Your task to perform on an android device: set the stopwatch Image 0: 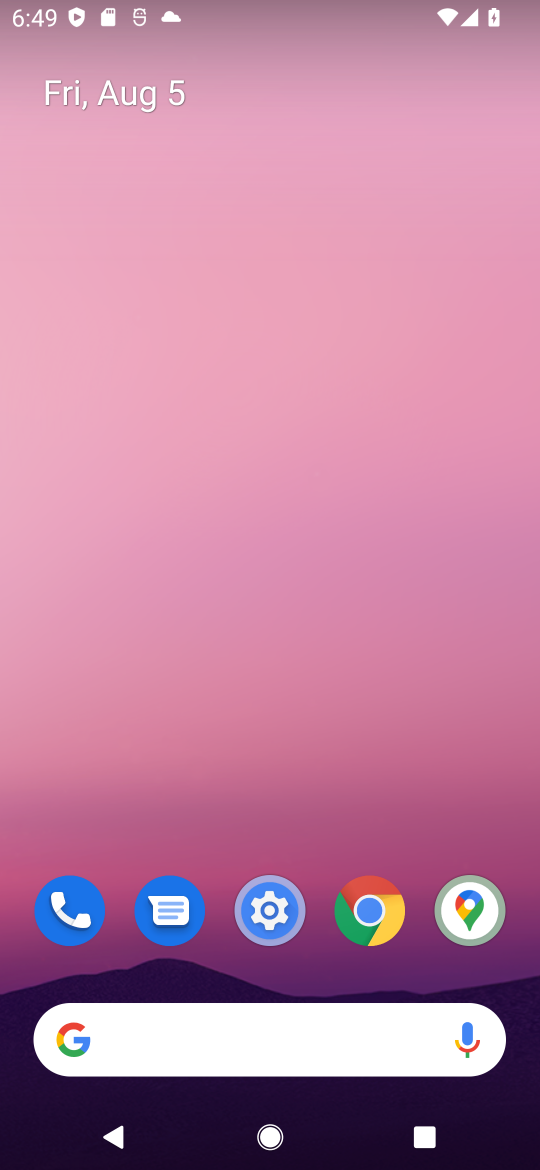
Step 0: drag from (339, 1070) to (234, 59)
Your task to perform on an android device: set the stopwatch Image 1: 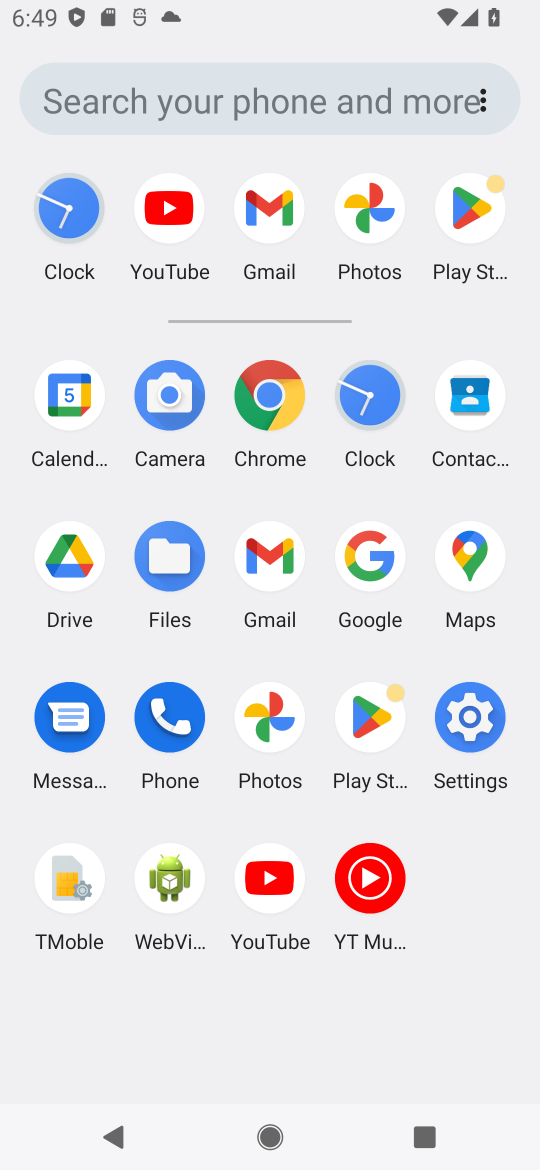
Step 1: click (383, 388)
Your task to perform on an android device: set the stopwatch Image 2: 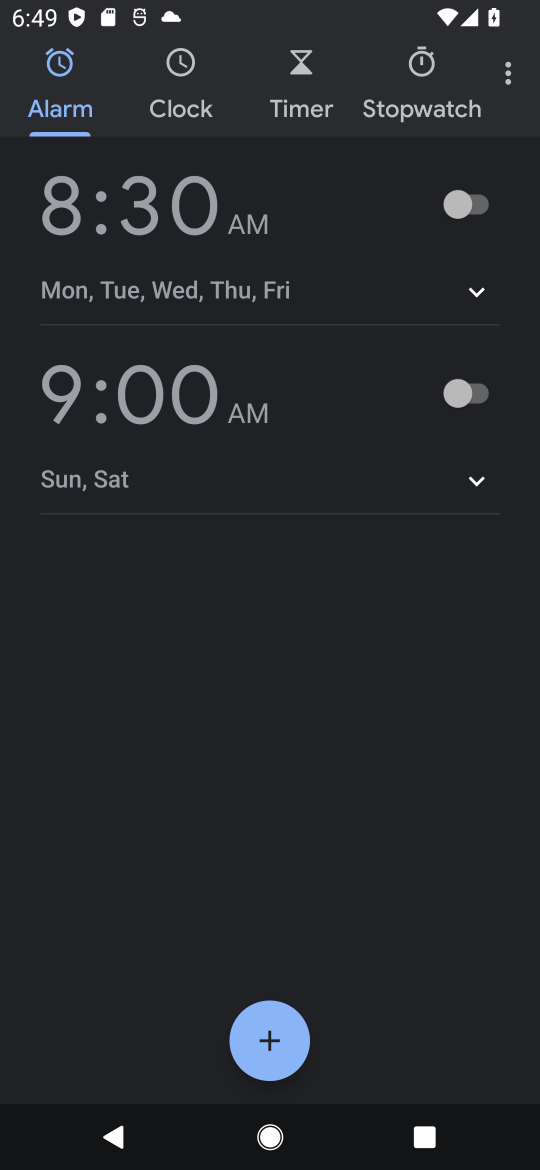
Step 2: click (446, 77)
Your task to perform on an android device: set the stopwatch Image 3: 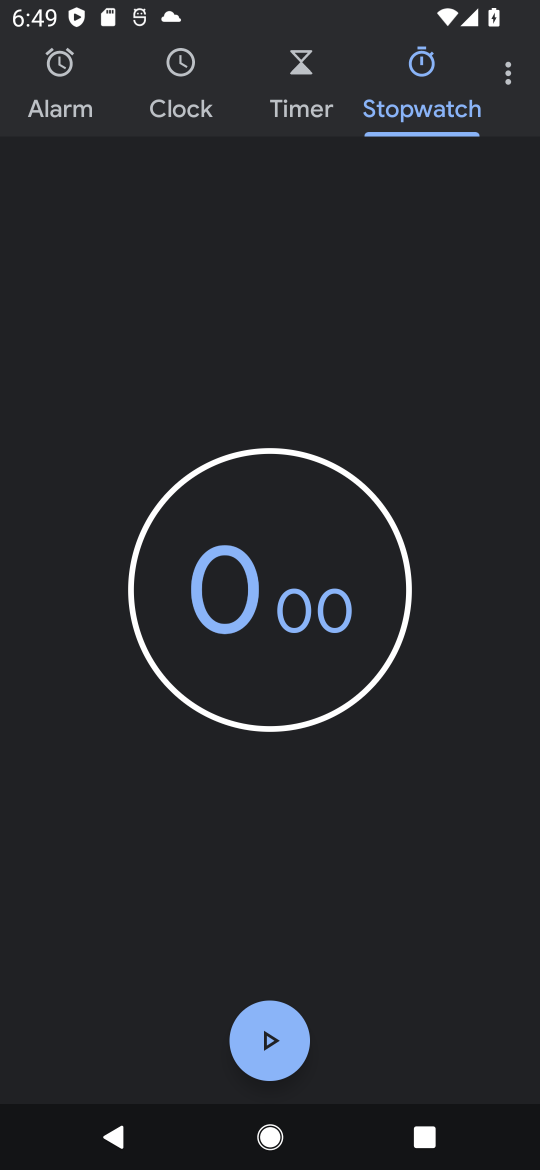
Step 3: click (268, 1035)
Your task to perform on an android device: set the stopwatch Image 4: 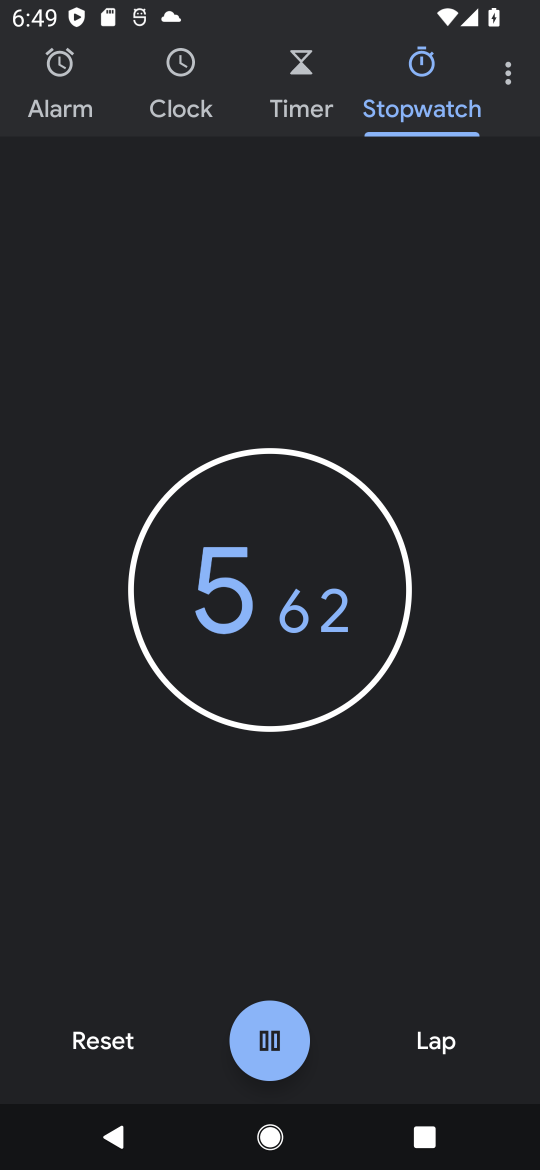
Step 4: task complete